Your task to perform on an android device: snooze an email in the gmail app Image 0: 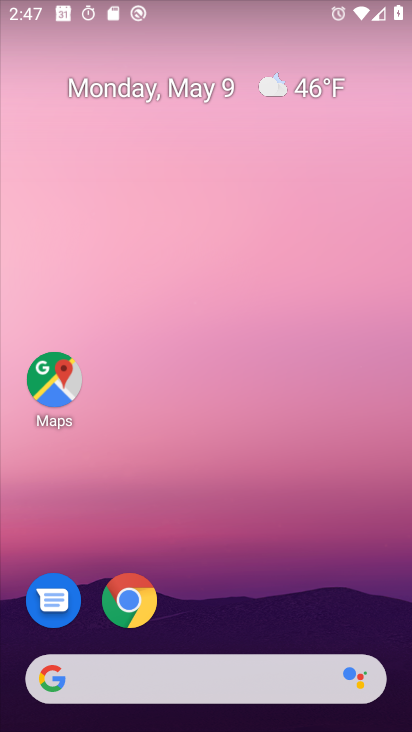
Step 0: drag from (238, 669) to (329, 155)
Your task to perform on an android device: snooze an email in the gmail app Image 1: 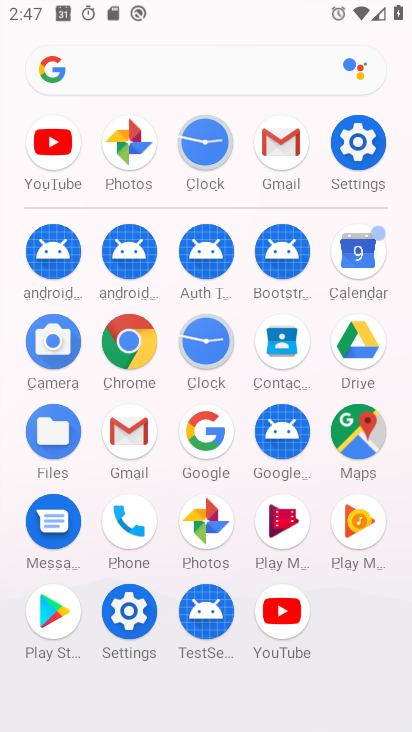
Step 1: click (274, 158)
Your task to perform on an android device: snooze an email in the gmail app Image 2: 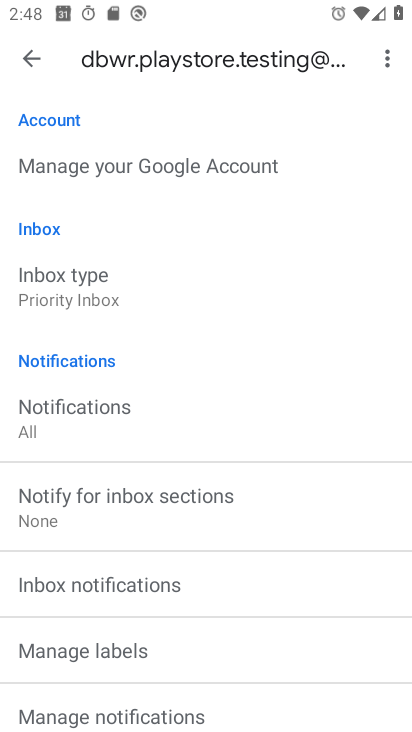
Step 2: drag from (176, 623) to (185, 237)
Your task to perform on an android device: snooze an email in the gmail app Image 3: 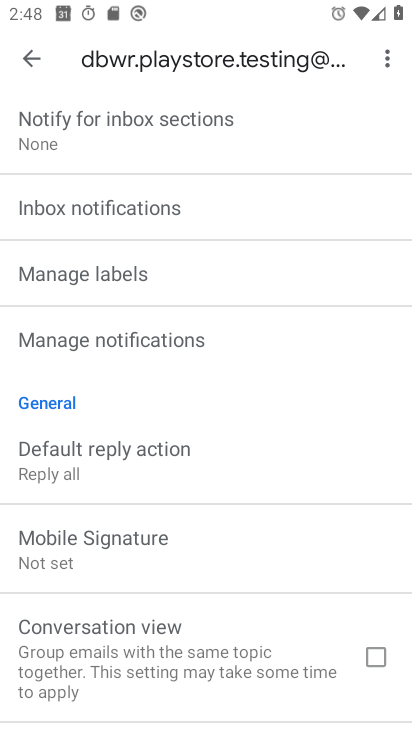
Step 3: click (27, 60)
Your task to perform on an android device: snooze an email in the gmail app Image 4: 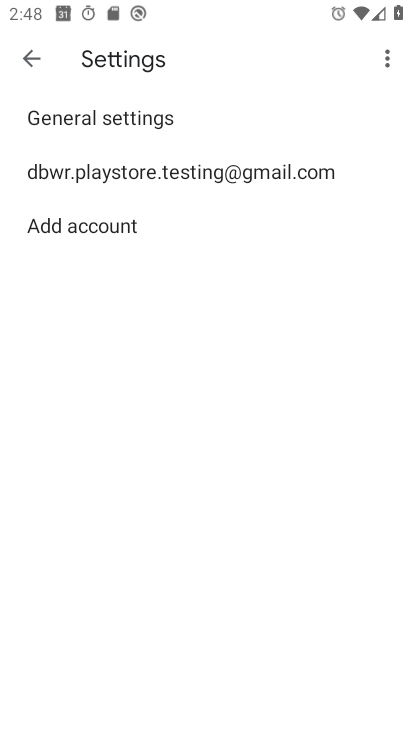
Step 4: click (27, 60)
Your task to perform on an android device: snooze an email in the gmail app Image 5: 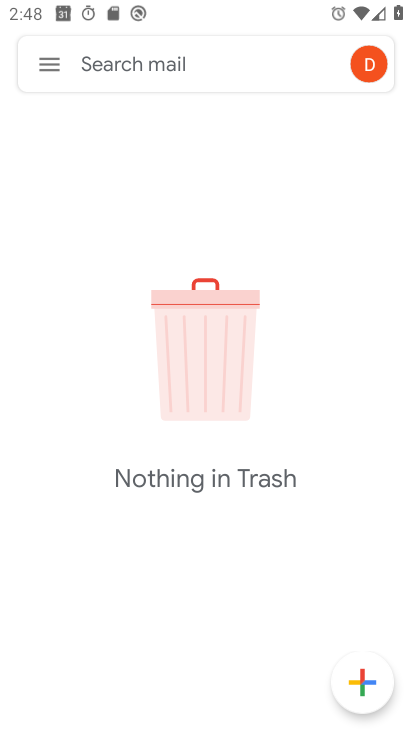
Step 5: click (46, 62)
Your task to perform on an android device: snooze an email in the gmail app Image 6: 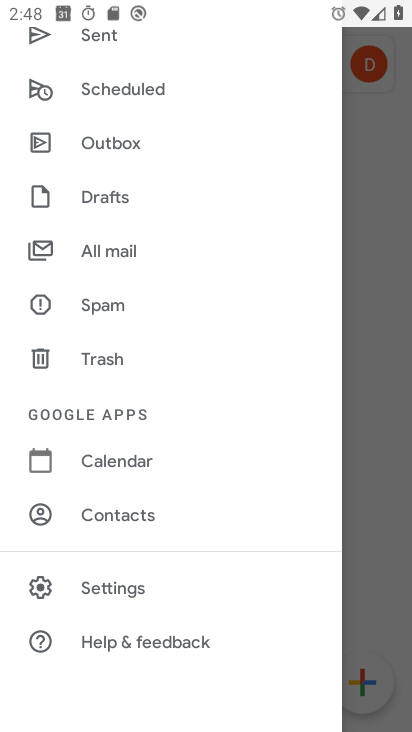
Step 6: click (123, 253)
Your task to perform on an android device: snooze an email in the gmail app Image 7: 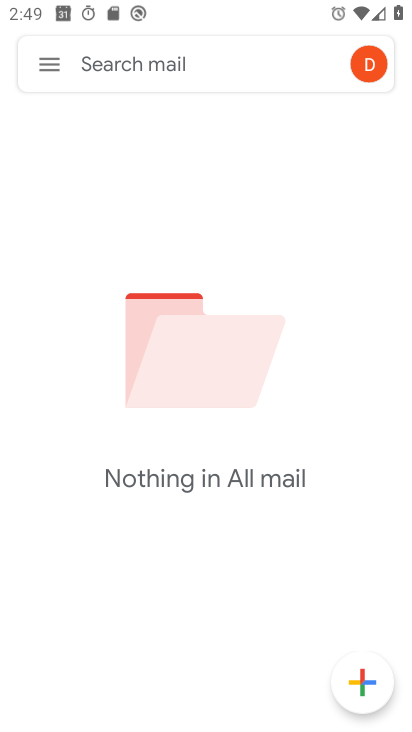
Step 7: task complete